Your task to perform on an android device: Go to privacy settings Image 0: 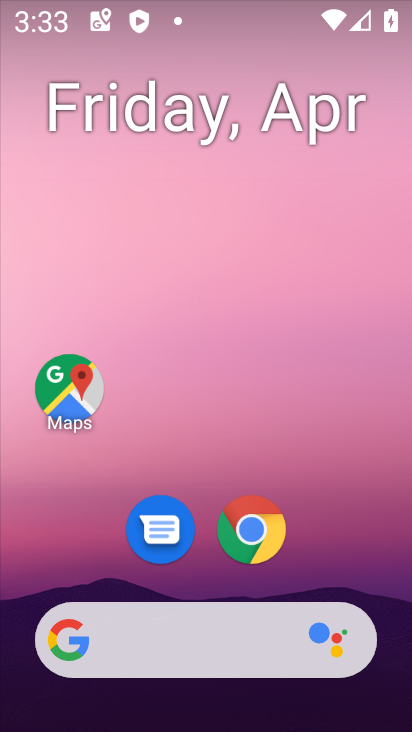
Step 0: click (252, 536)
Your task to perform on an android device: Go to privacy settings Image 1: 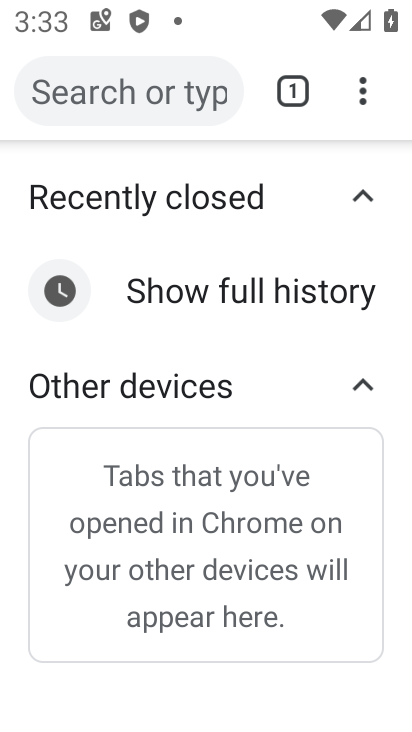
Step 1: click (356, 95)
Your task to perform on an android device: Go to privacy settings Image 2: 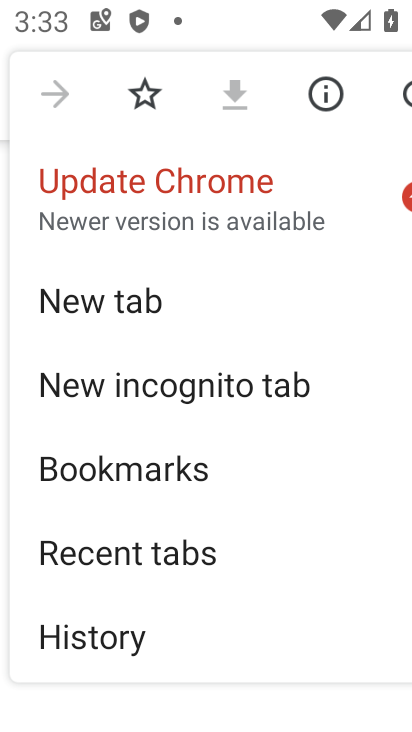
Step 2: drag from (217, 593) to (231, 458)
Your task to perform on an android device: Go to privacy settings Image 3: 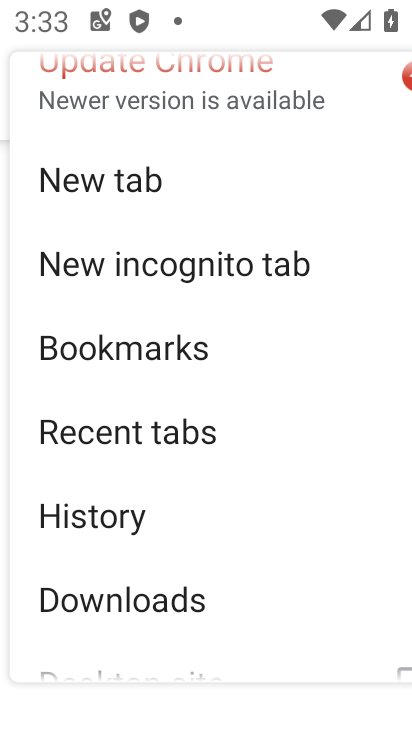
Step 3: drag from (197, 597) to (196, 447)
Your task to perform on an android device: Go to privacy settings Image 4: 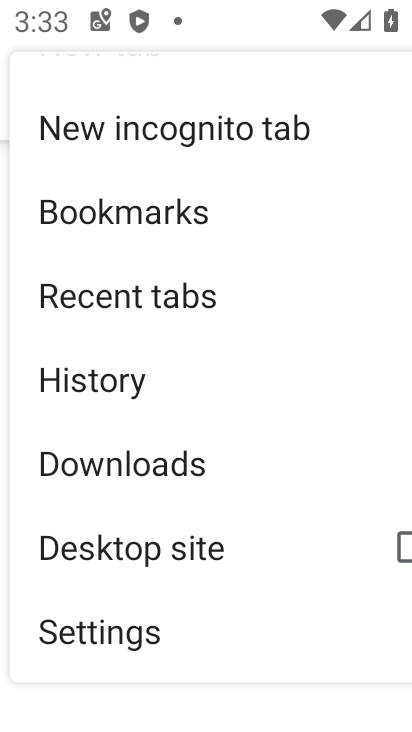
Step 4: click (172, 627)
Your task to perform on an android device: Go to privacy settings Image 5: 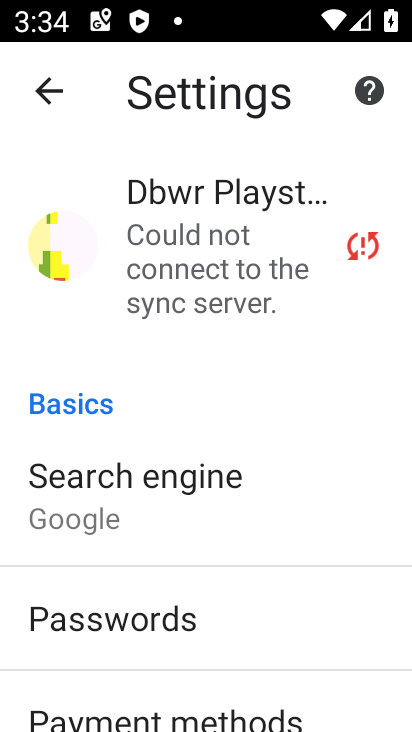
Step 5: drag from (172, 622) to (187, 452)
Your task to perform on an android device: Go to privacy settings Image 6: 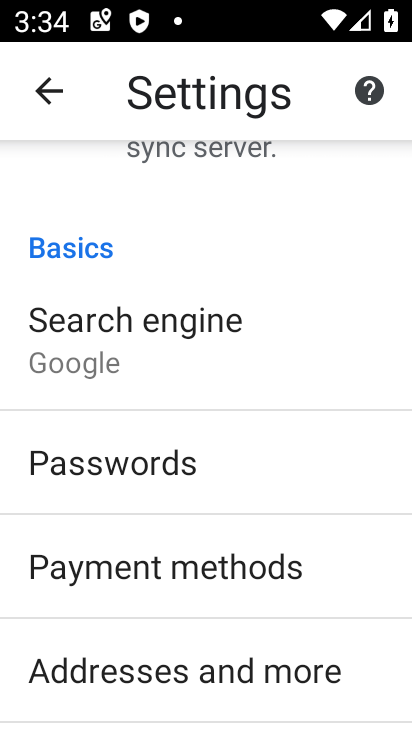
Step 6: drag from (239, 595) to (238, 465)
Your task to perform on an android device: Go to privacy settings Image 7: 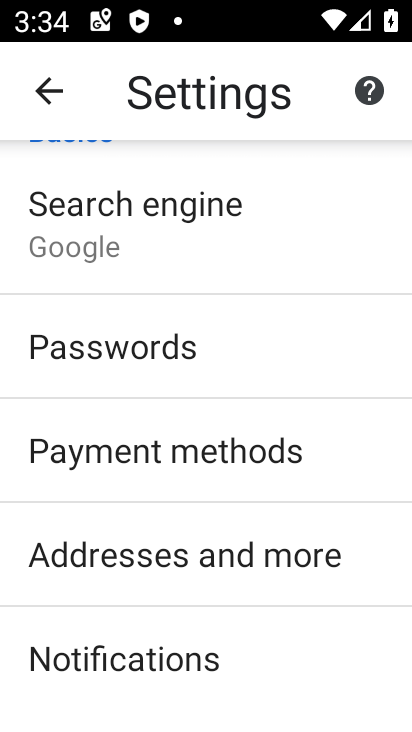
Step 7: drag from (218, 624) to (218, 523)
Your task to perform on an android device: Go to privacy settings Image 8: 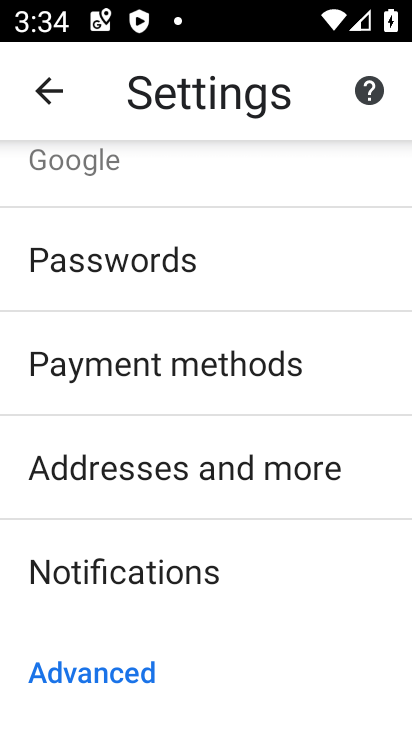
Step 8: drag from (212, 598) to (215, 478)
Your task to perform on an android device: Go to privacy settings Image 9: 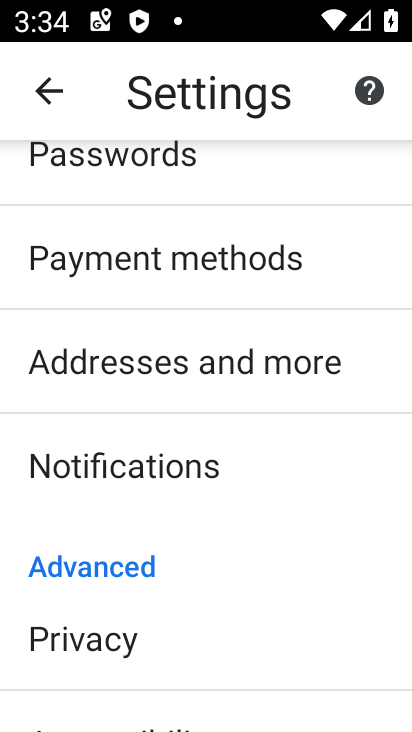
Step 9: click (127, 657)
Your task to perform on an android device: Go to privacy settings Image 10: 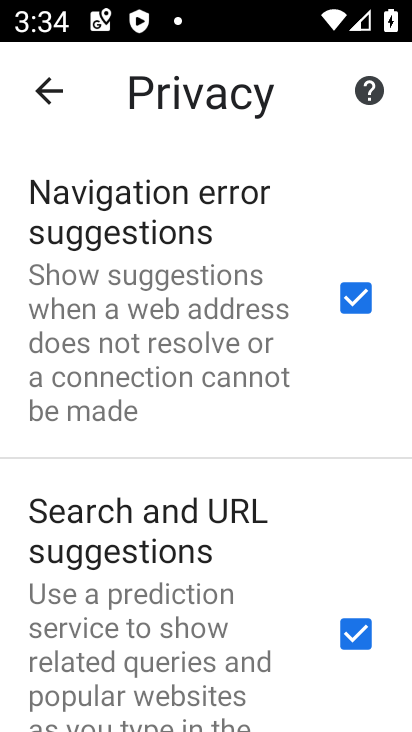
Step 10: task complete